Your task to perform on an android device: turn off notifications settings in the gmail app Image 0: 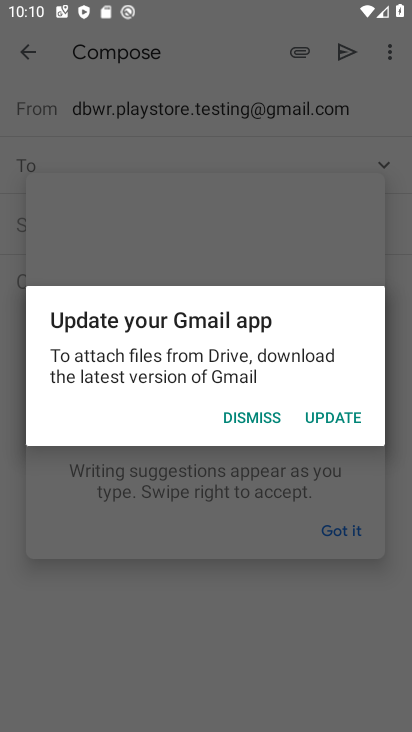
Step 0: press home button
Your task to perform on an android device: turn off notifications settings in the gmail app Image 1: 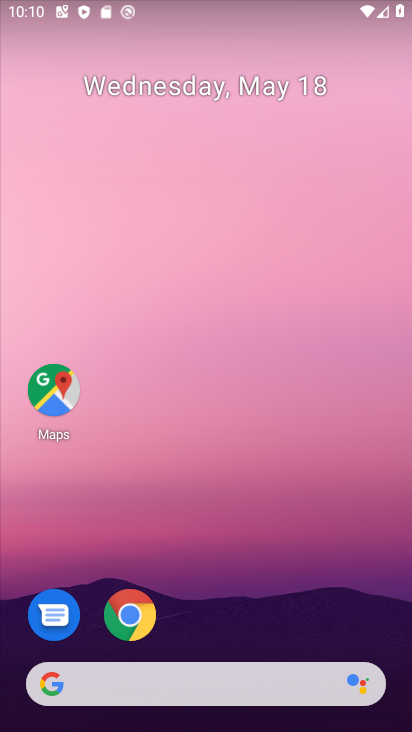
Step 1: drag from (213, 638) to (227, 205)
Your task to perform on an android device: turn off notifications settings in the gmail app Image 2: 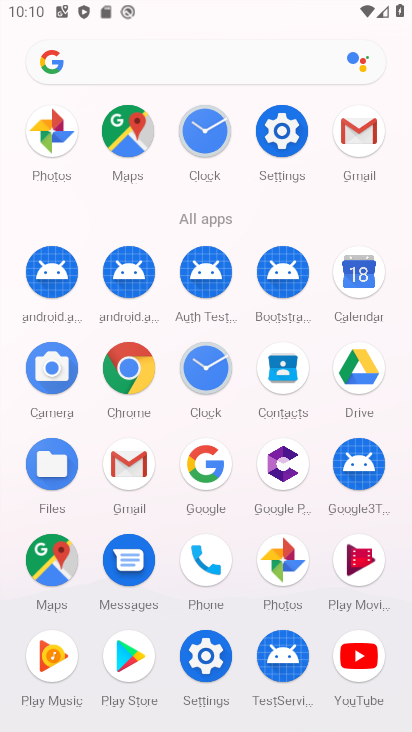
Step 2: click (128, 452)
Your task to perform on an android device: turn off notifications settings in the gmail app Image 3: 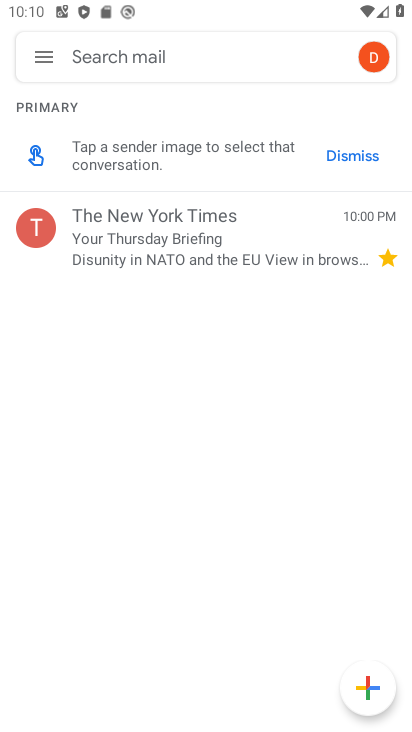
Step 3: click (32, 50)
Your task to perform on an android device: turn off notifications settings in the gmail app Image 4: 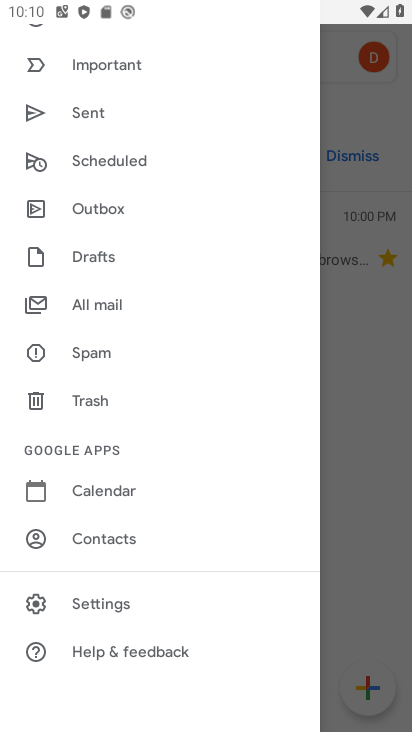
Step 4: click (123, 602)
Your task to perform on an android device: turn off notifications settings in the gmail app Image 5: 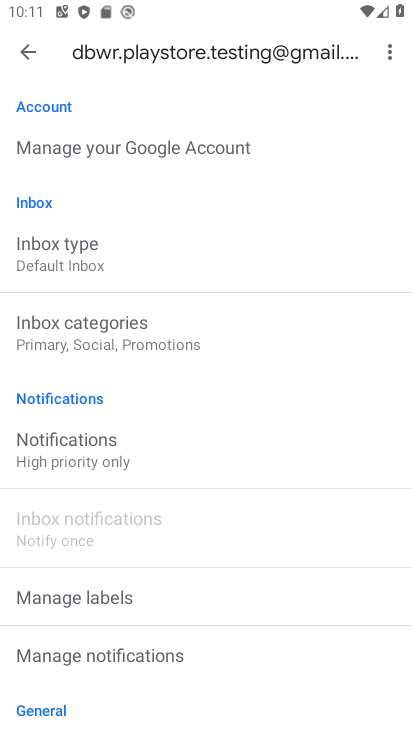
Step 5: click (132, 461)
Your task to perform on an android device: turn off notifications settings in the gmail app Image 6: 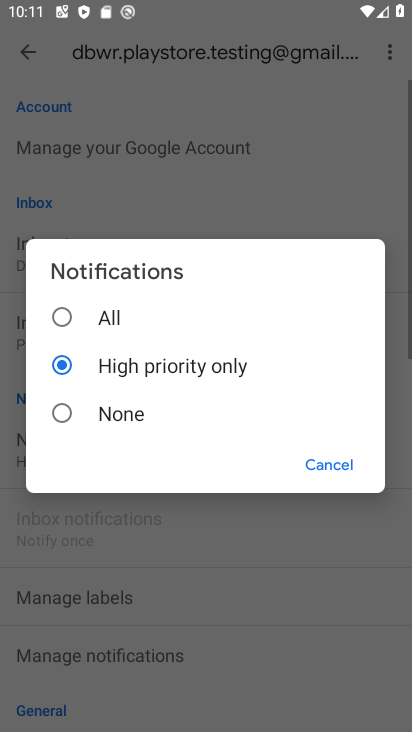
Step 6: click (132, 461)
Your task to perform on an android device: turn off notifications settings in the gmail app Image 7: 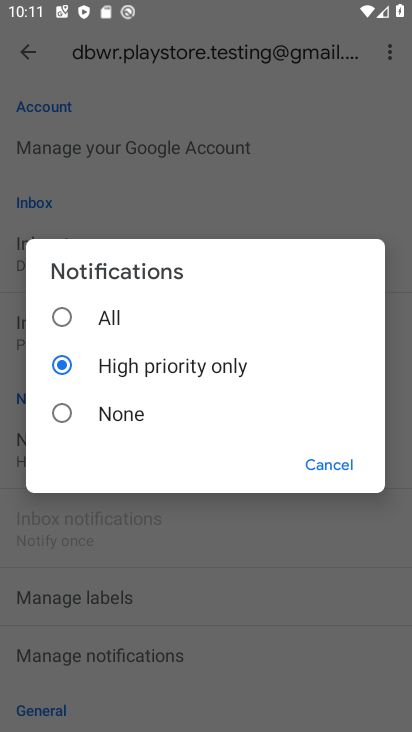
Step 7: click (149, 424)
Your task to perform on an android device: turn off notifications settings in the gmail app Image 8: 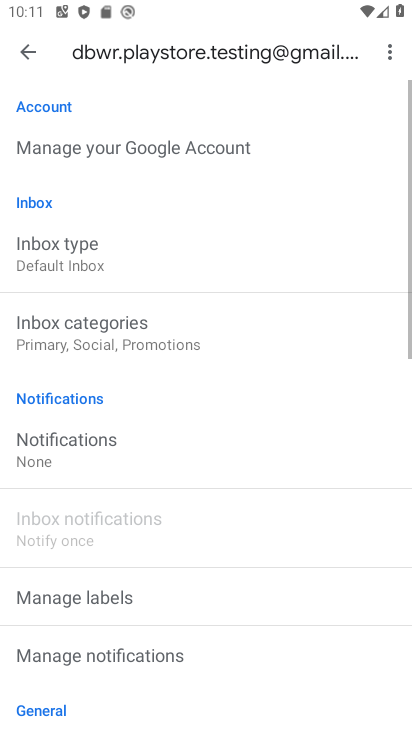
Step 8: task complete